Your task to perform on an android device: find which apps use the phone's location Image 0: 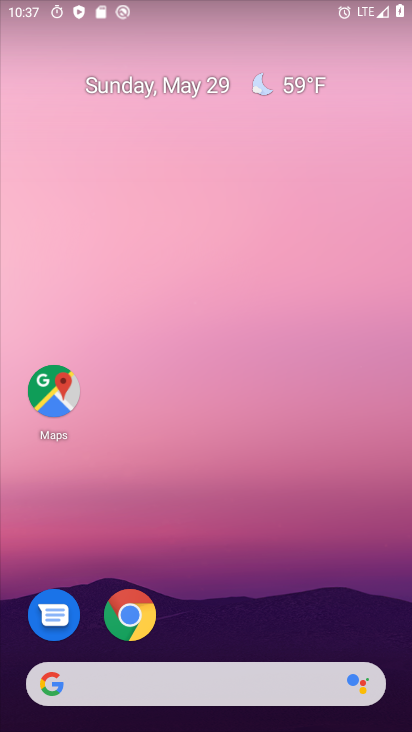
Step 0: drag from (274, 520) to (306, 11)
Your task to perform on an android device: find which apps use the phone's location Image 1: 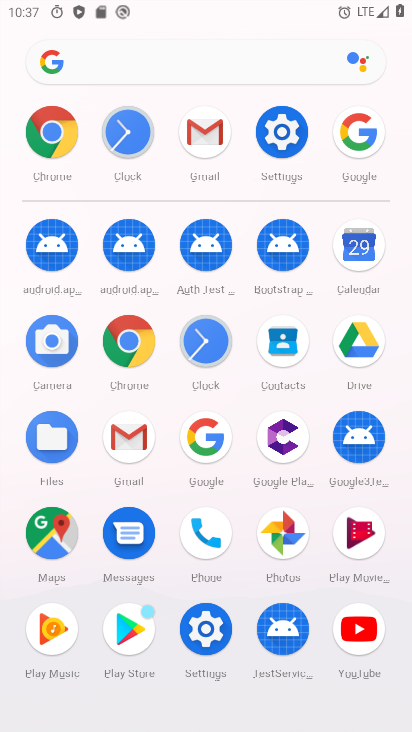
Step 1: click (280, 131)
Your task to perform on an android device: find which apps use the phone's location Image 2: 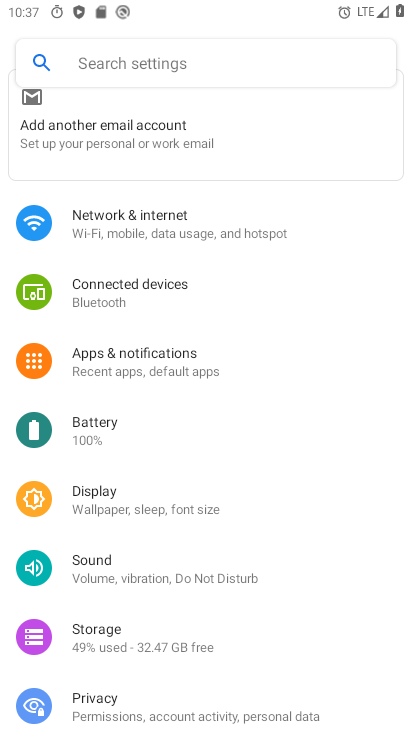
Step 2: drag from (195, 565) to (171, 110)
Your task to perform on an android device: find which apps use the phone's location Image 3: 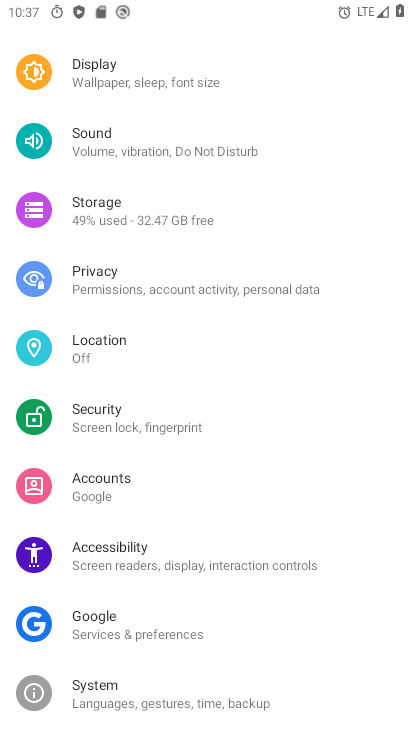
Step 3: click (129, 351)
Your task to perform on an android device: find which apps use the phone's location Image 4: 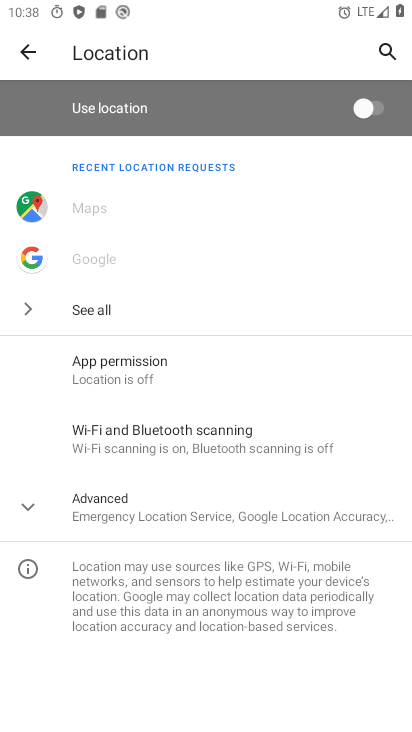
Step 4: click (148, 376)
Your task to perform on an android device: find which apps use the phone's location Image 5: 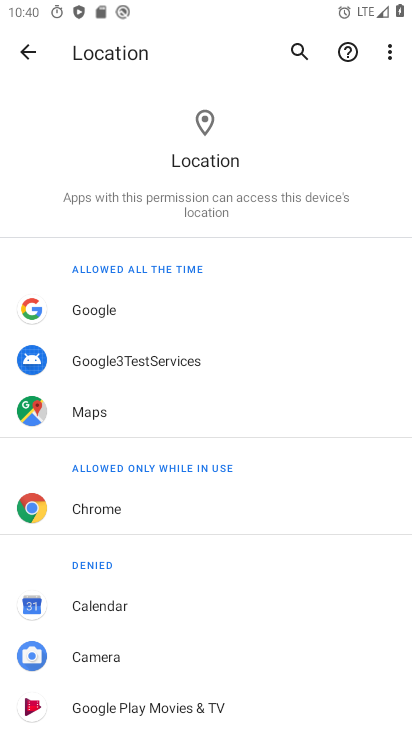
Step 5: task complete